Your task to perform on an android device: open wifi settings Image 0: 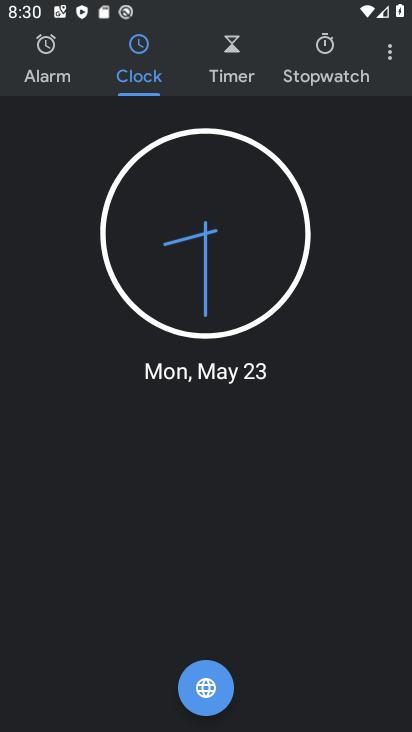
Step 0: press home button
Your task to perform on an android device: open wifi settings Image 1: 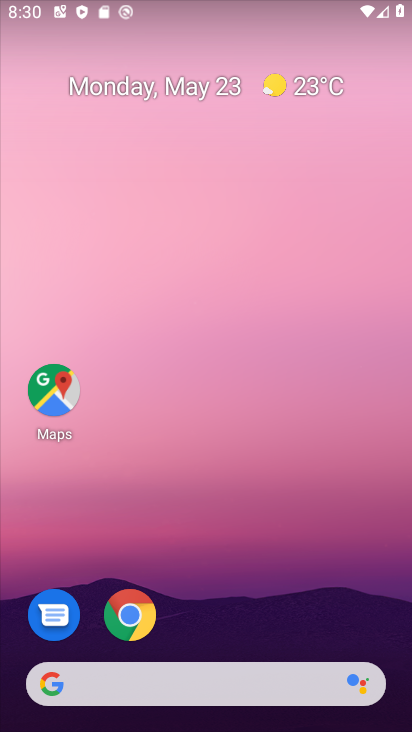
Step 1: drag from (227, 600) to (182, 216)
Your task to perform on an android device: open wifi settings Image 2: 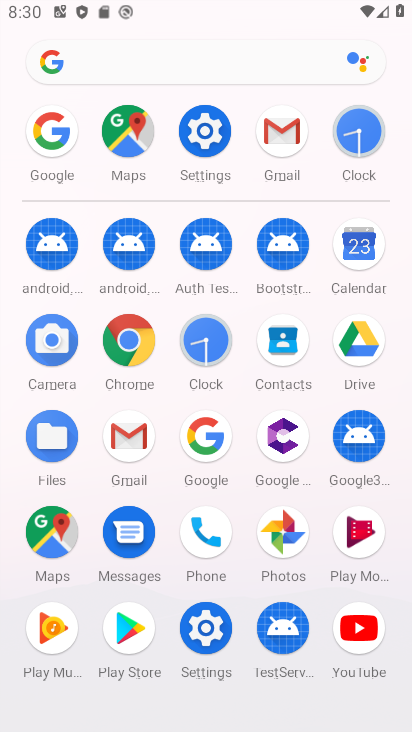
Step 2: click (206, 130)
Your task to perform on an android device: open wifi settings Image 3: 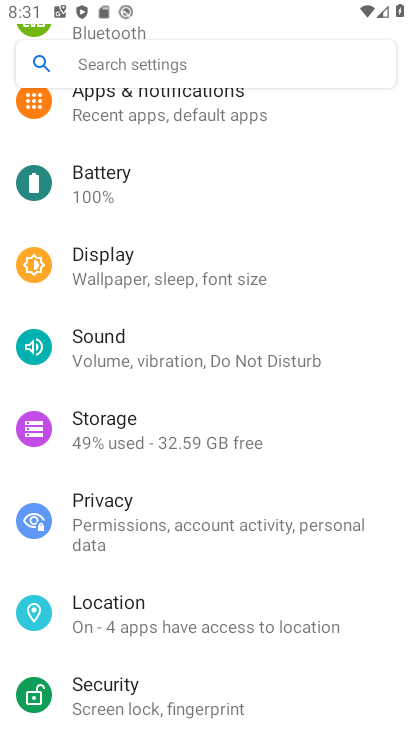
Step 3: drag from (196, 195) to (178, 303)
Your task to perform on an android device: open wifi settings Image 4: 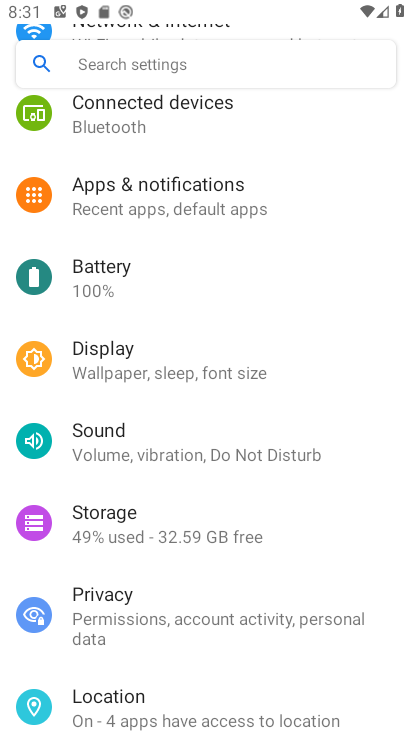
Step 4: drag from (192, 149) to (210, 296)
Your task to perform on an android device: open wifi settings Image 5: 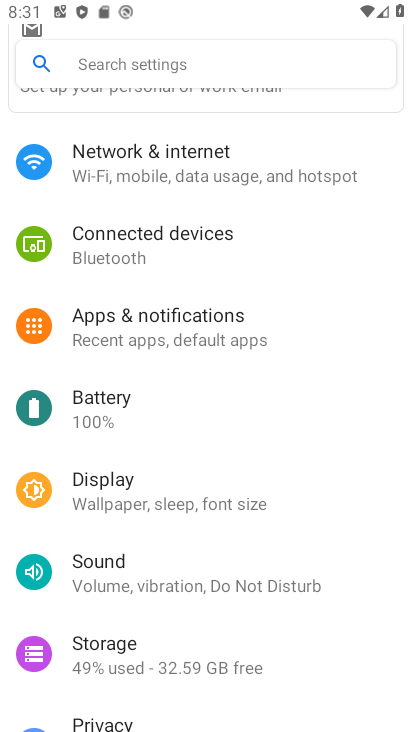
Step 5: drag from (200, 199) to (227, 296)
Your task to perform on an android device: open wifi settings Image 6: 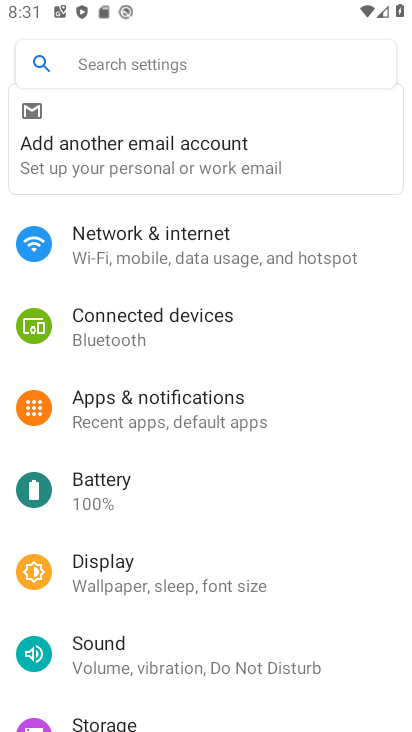
Step 6: click (188, 250)
Your task to perform on an android device: open wifi settings Image 7: 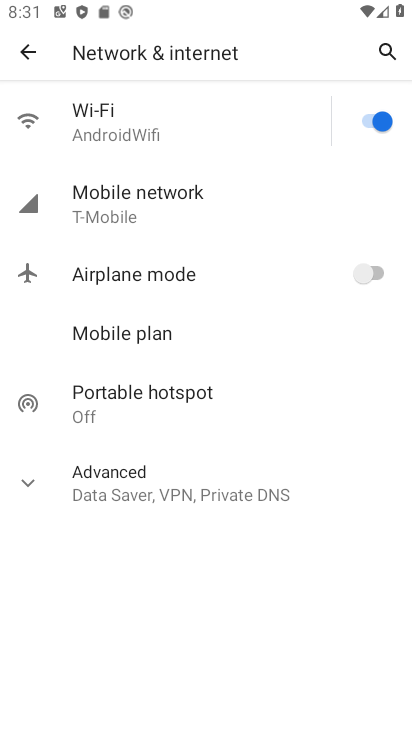
Step 7: click (133, 132)
Your task to perform on an android device: open wifi settings Image 8: 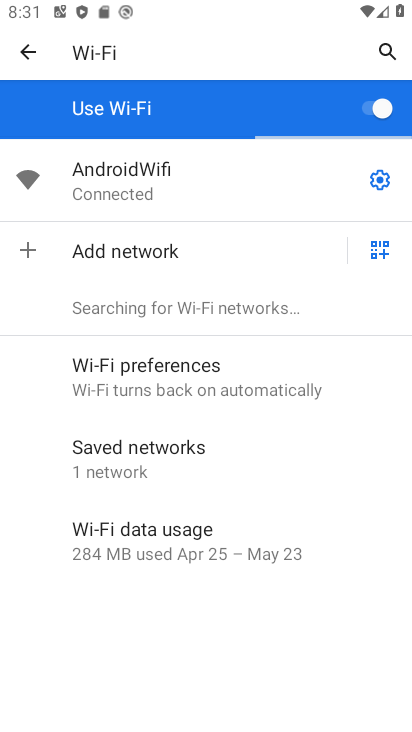
Step 8: click (389, 176)
Your task to perform on an android device: open wifi settings Image 9: 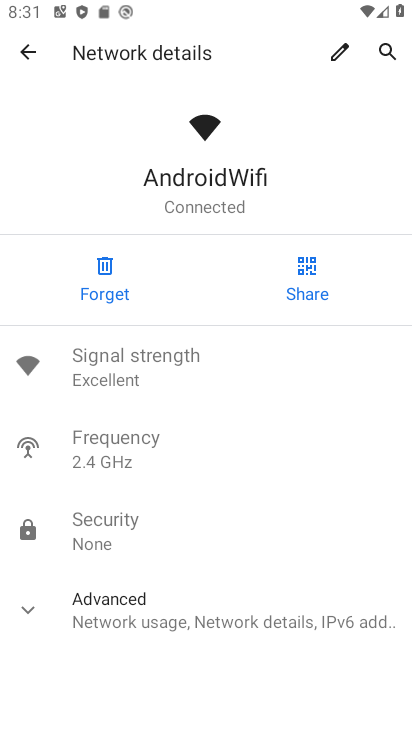
Step 9: task complete